Your task to perform on an android device: Open Reddit.com Image 0: 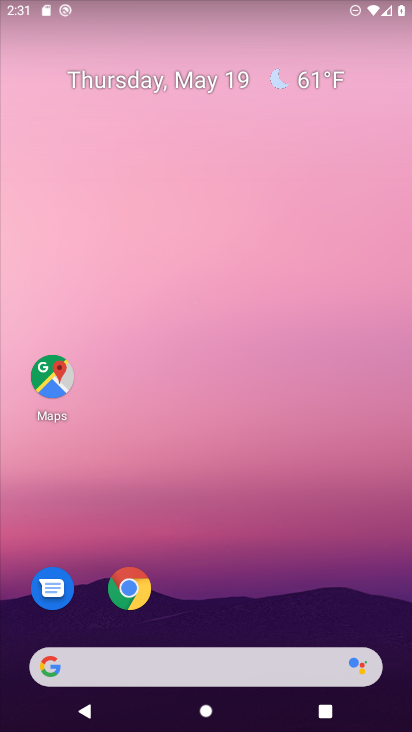
Step 0: click (120, 588)
Your task to perform on an android device: Open Reddit.com Image 1: 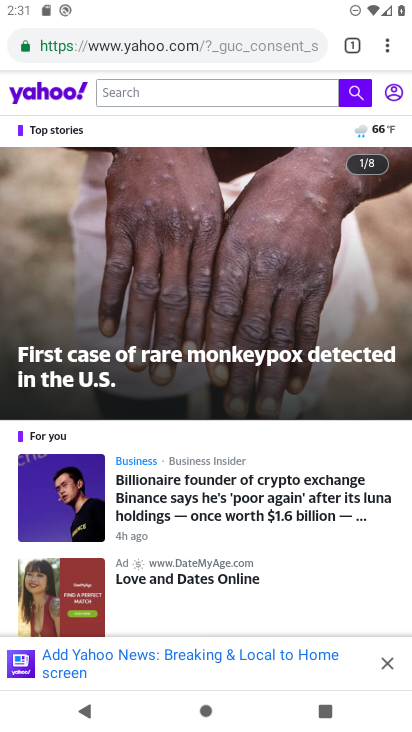
Step 1: click (141, 40)
Your task to perform on an android device: Open Reddit.com Image 2: 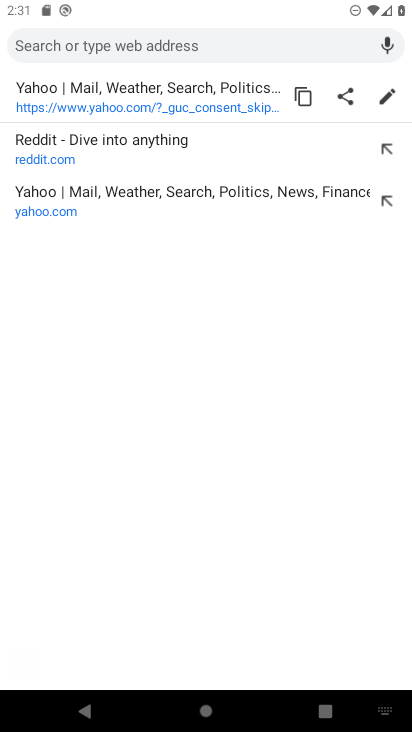
Step 2: click (69, 145)
Your task to perform on an android device: Open Reddit.com Image 3: 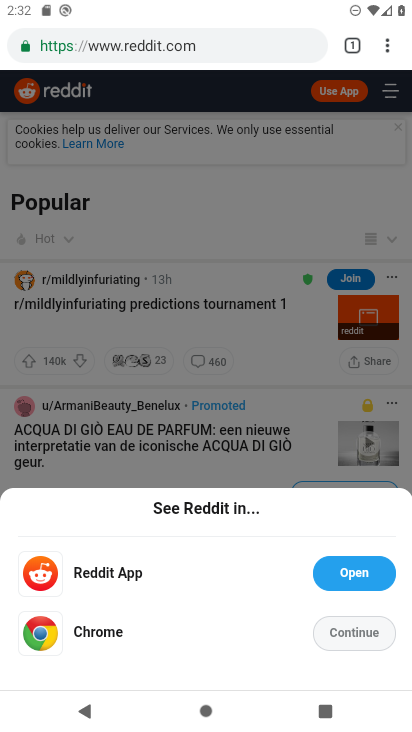
Step 3: task complete